Your task to perform on an android device: change your default location settings in chrome Image 0: 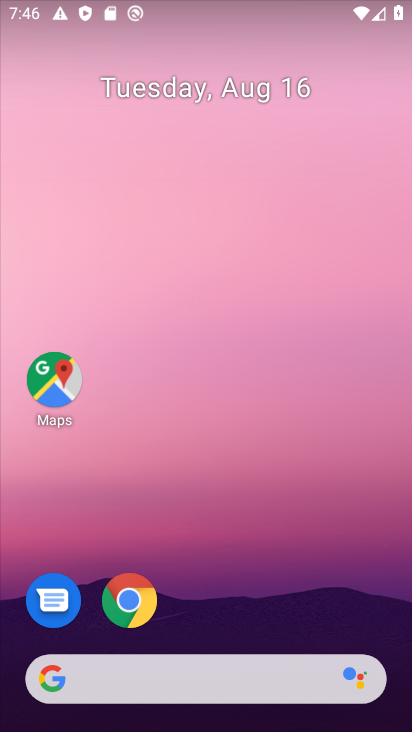
Step 0: drag from (241, 634) to (390, 87)
Your task to perform on an android device: change your default location settings in chrome Image 1: 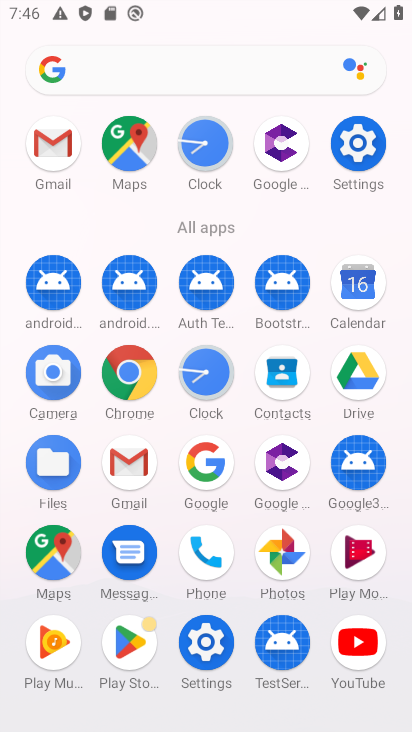
Step 1: click (133, 373)
Your task to perform on an android device: change your default location settings in chrome Image 2: 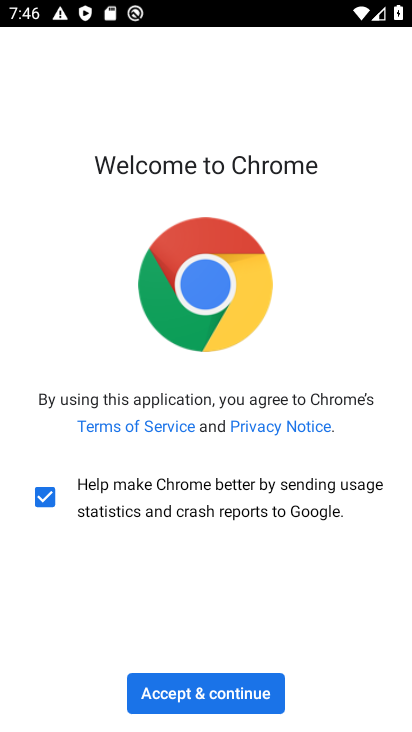
Step 2: click (166, 703)
Your task to perform on an android device: change your default location settings in chrome Image 3: 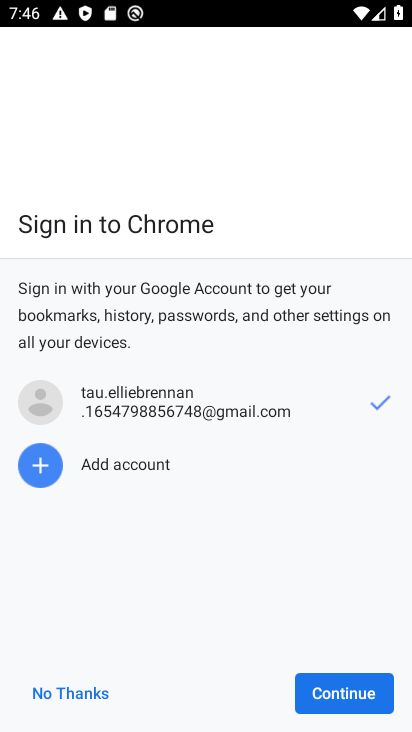
Step 3: click (92, 692)
Your task to perform on an android device: change your default location settings in chrome Image 4: 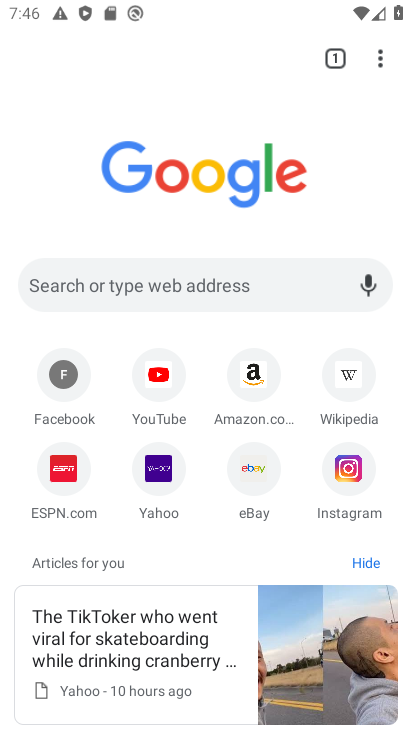
Step 4: drag from (375, 64) to (141, 493)
Your task to perform on an android device: change your default location settings in chrome Image 5: 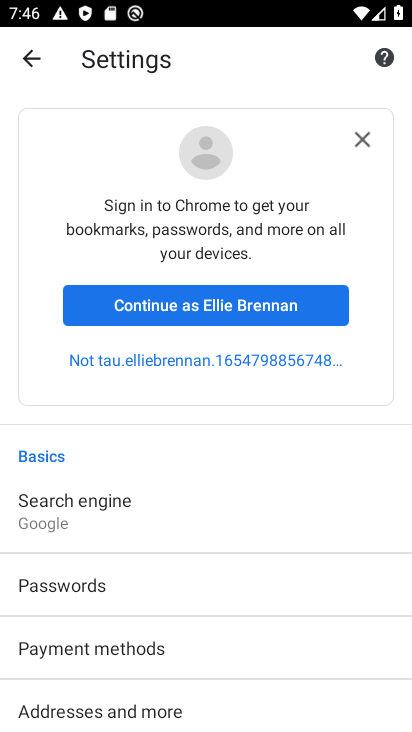
Step 5: drag from (130, 703) to (267, 235)
Your task to perform on an android device: change your default location settings in chrome Image 6: 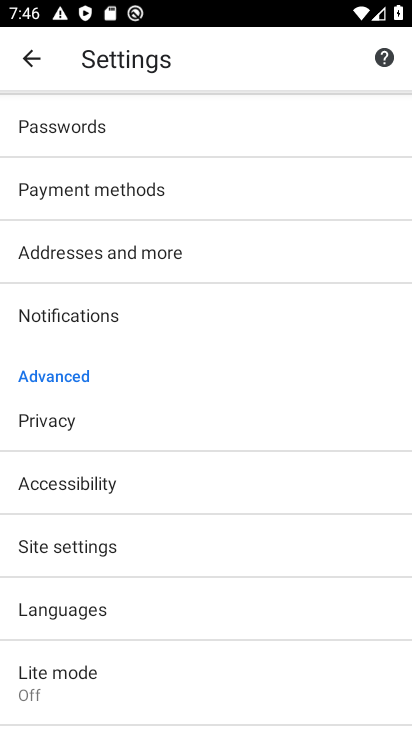
Step 6: click (99, 546)
Your task to perform on an android device: change your default location settings in chrome Image 7: 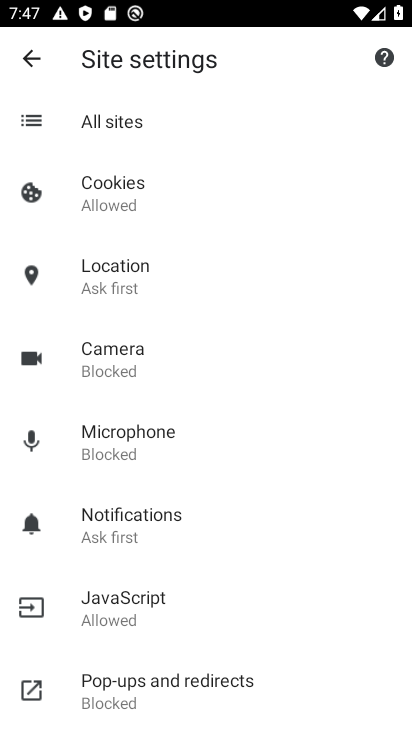
Step 7: click (137, 274)
Your task to perform on an android device: change your default location settings in chrome Image 8: 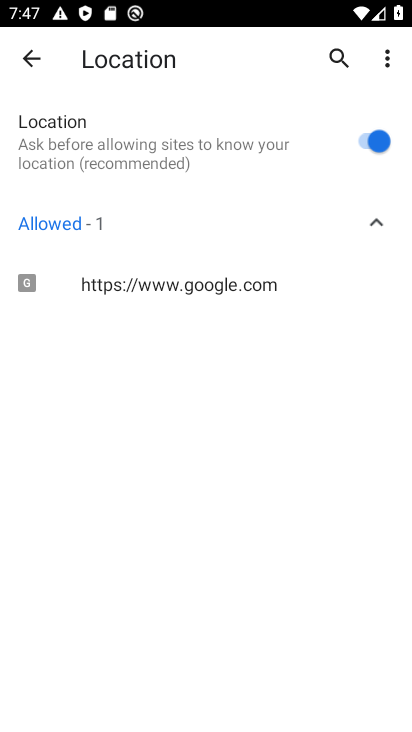
Step 8: click (364, 137)
Your task to perform on an android device: change your default location settings in chrome Image 9: 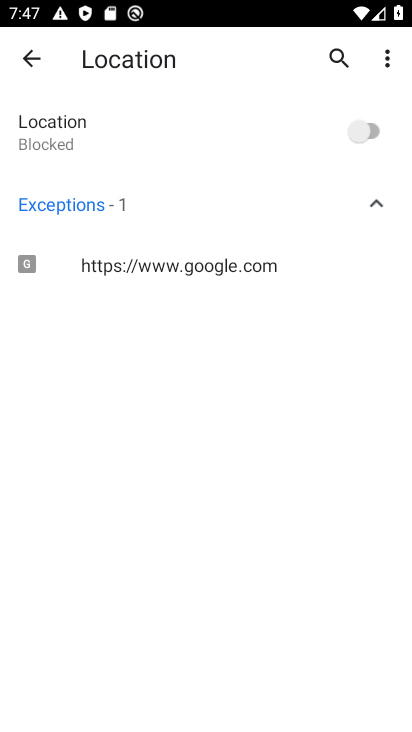
Step 9: task complete